Your task to perform on an android device: Go to display settings Image 0: 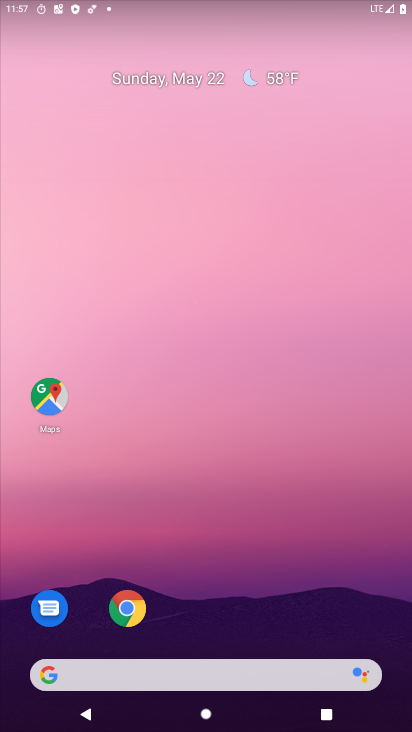
Step 0: drag from (228, 621) to (164, 50)
Your task to perform on an android device: Go to display settings Image 1: 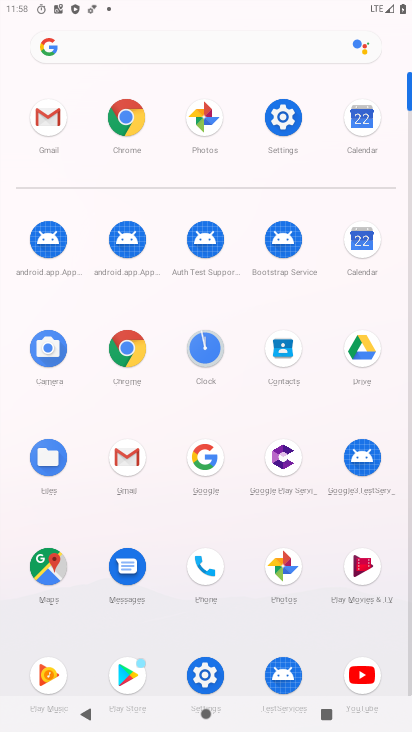
Step 1: click (286, 128)
Your task to perform on an android device: Go to display settings Image 2: 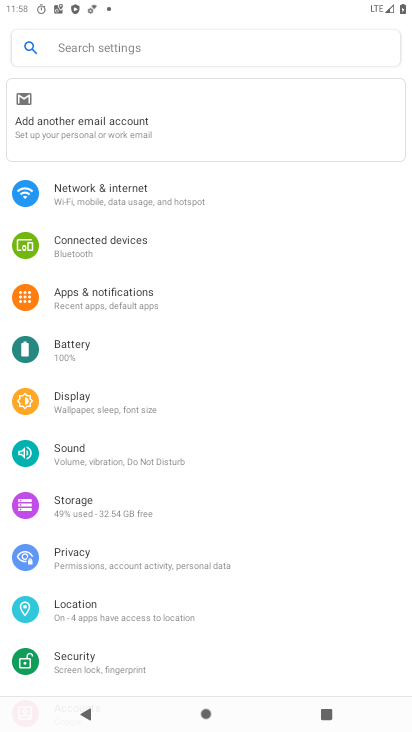
Step 2: click (188, 404)
Your task to perform on an android device: Go to display settings Image 3: 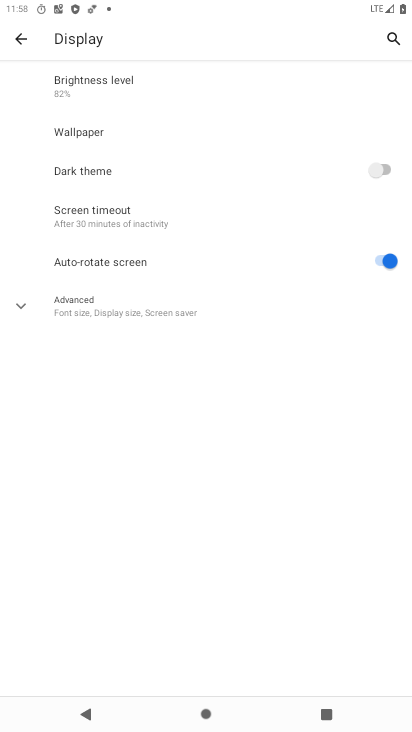
Step 3: click (186, 311)
Your task to perform on an android device: Go to display settings Image 4: 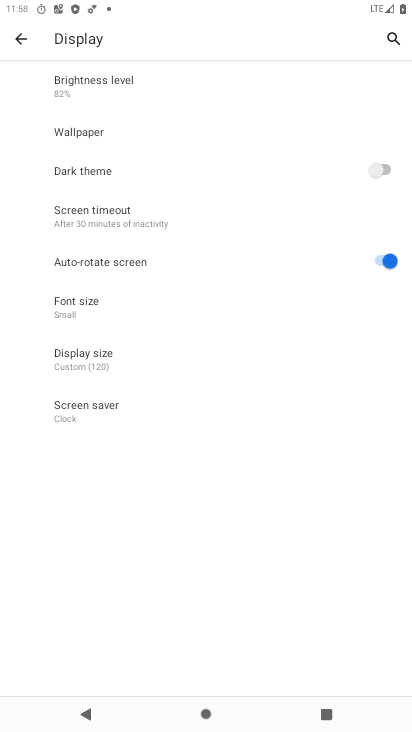
Step 4: click (232, 508)
Your task to perform on an android device: Go to display settings Image 5: 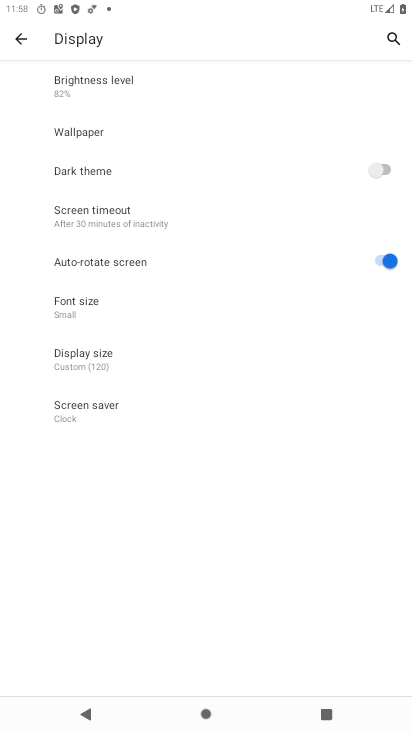
Step 5: task complete